Your task to perform on an android device: Search for Italian restaurants on Maps Image 0: 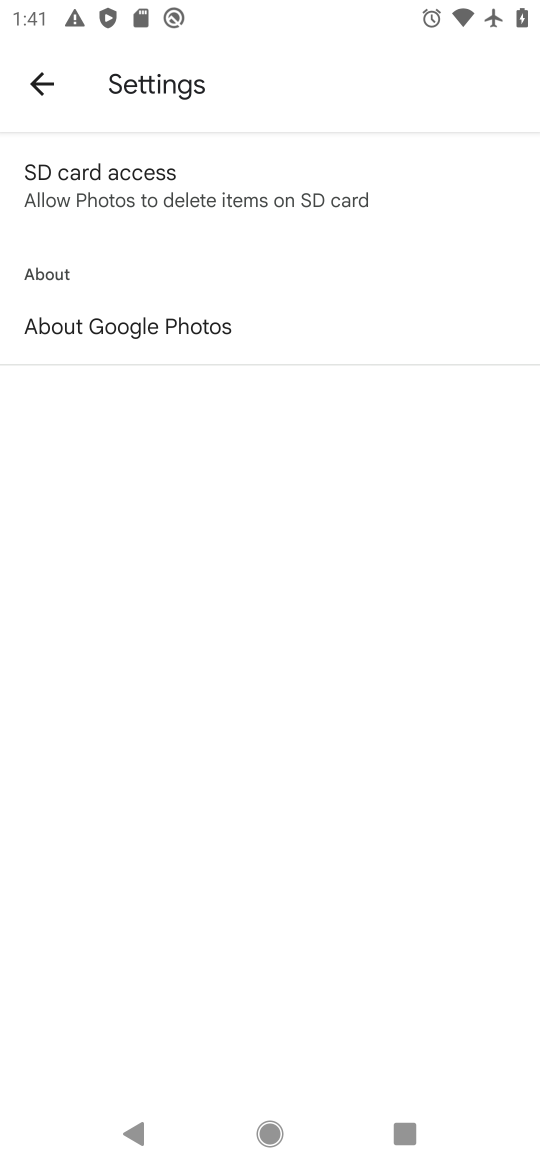
Step 0: press home button
Your task to perform on an android device: Search for Italian restaurants on Maps Image 1: 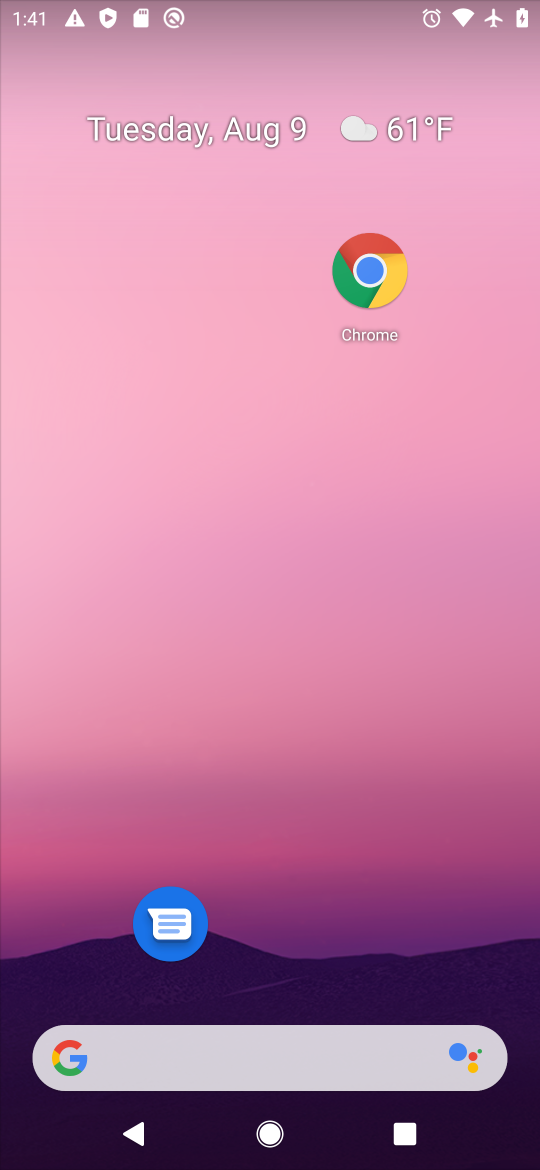
Step 1: drag from (299, 1004) to (240, 31)
Your task to perform on an android device: Search for Italian restaurants on Maps Image 2: 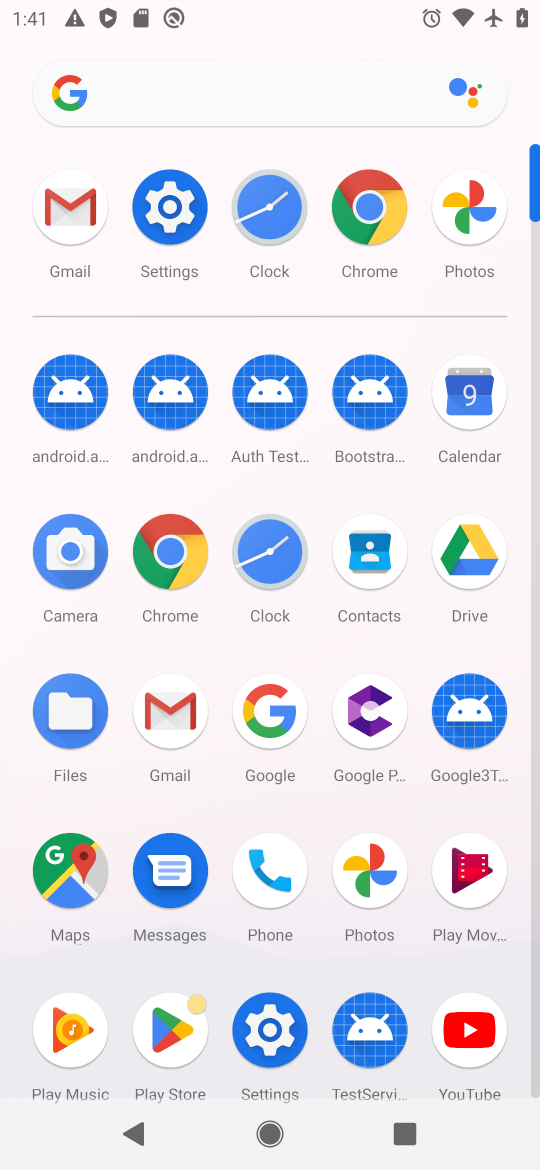
Step 2: click (70, 851)
Your task to perform on an android device: Search for Italian restaurants on Maps Image 3: 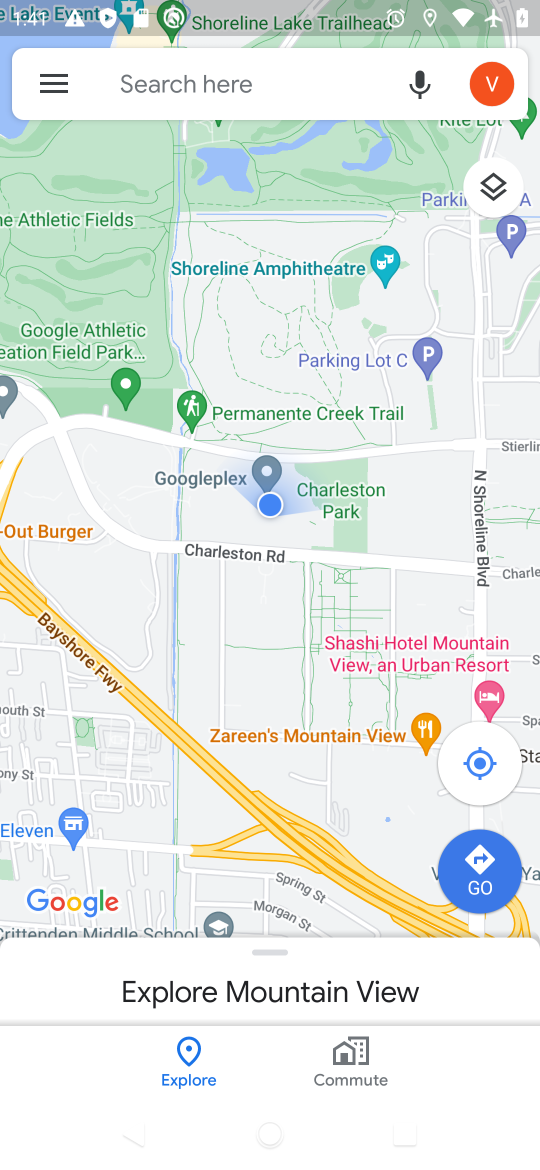
Step 3: click (322, 80)
Your task to perform on an android device: Search for Italian restaurants on Maps Image 4: 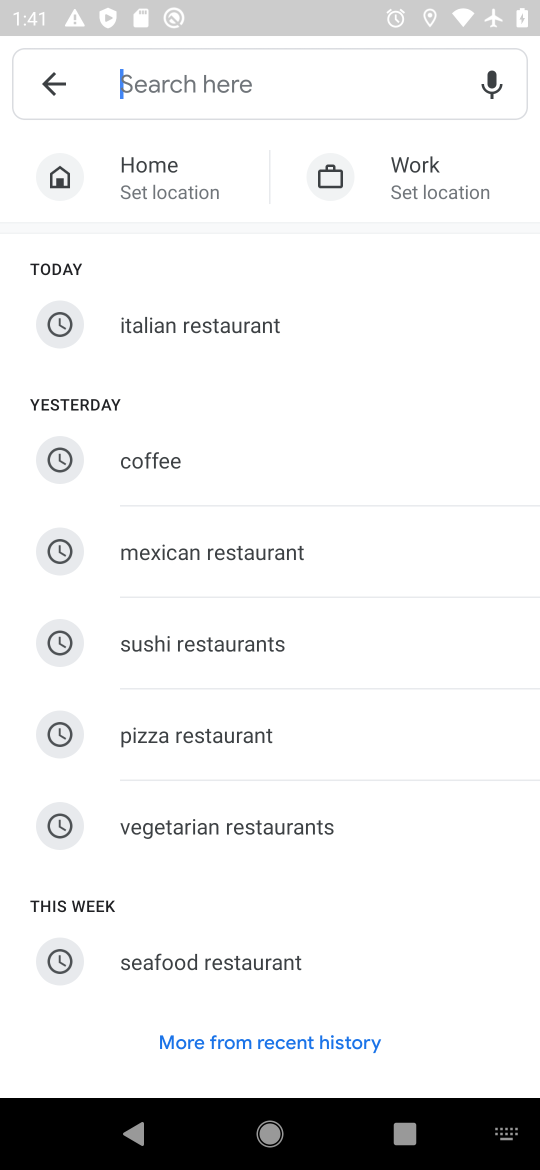
Step 4: click (254, 355)
Your task to perform on an android device: Search for Italian restaurants on Maps Image 5: 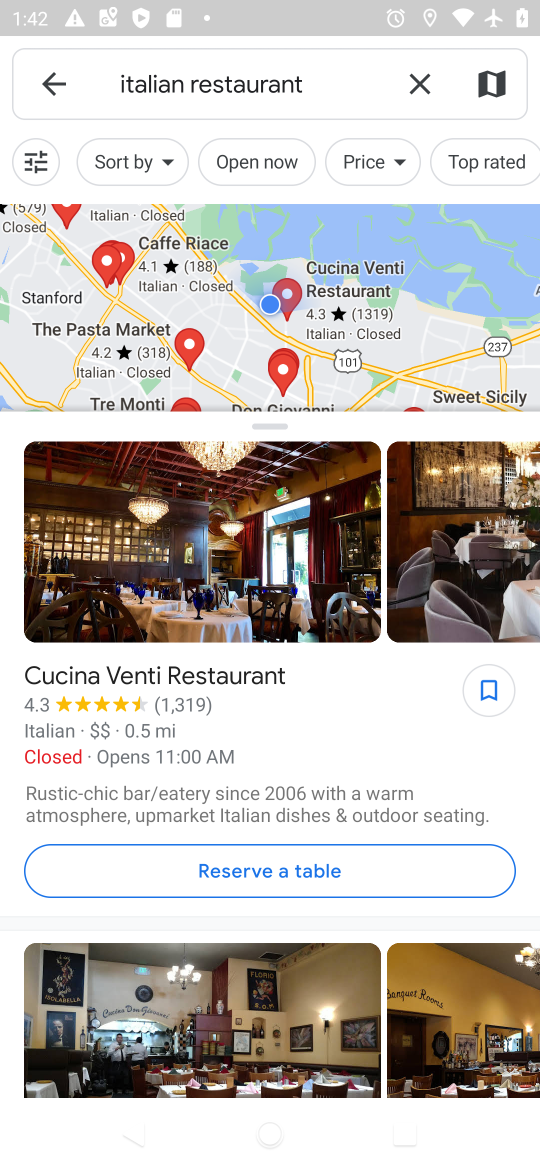
Step 5: task complete